Your task to perform on an android device: Open Youtube and go to the subscriptions tab Image 0: 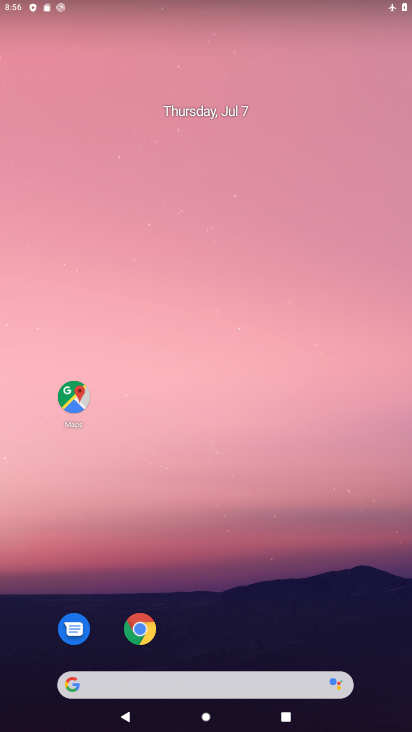
Step 0: drag from (194, 582) to (186, 190)
Your task to perform on an android device: Open Youtube and go to the subscriptions tab Image 1: 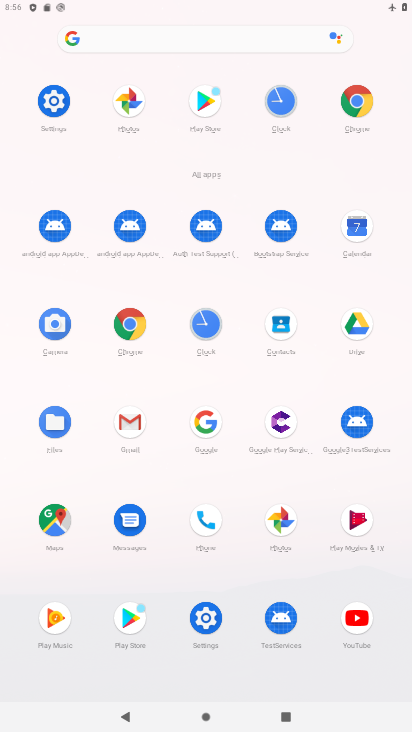
Step 1: click (355, 622)
Your task to perform on an android device: Open Youtube and go to the subscriptions tab Image 2: 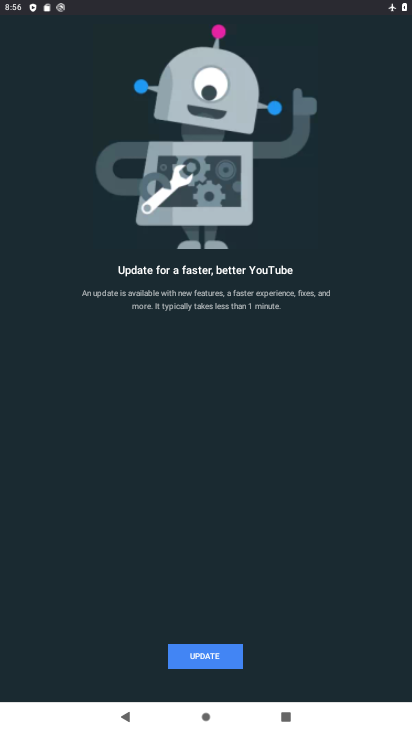
Step 2: click (200, 658)
Your task to perform on an android device: Open Youtube and go to the subscriptions tab Image 3: 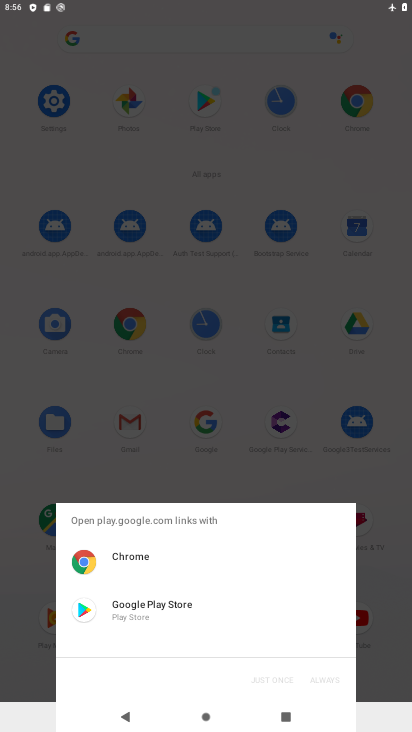
Step 3: click (148, 610)
Your task to perform on an android device: Open Youtube and go to the subscriptions tab Image 4: 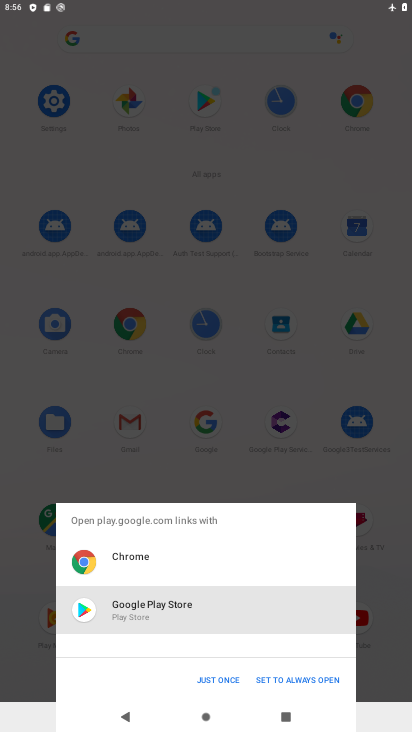
Step 4: click (224, 678)
Your task to perform on an android device: Open Youtube and go to the subscriptions tab Image 5: 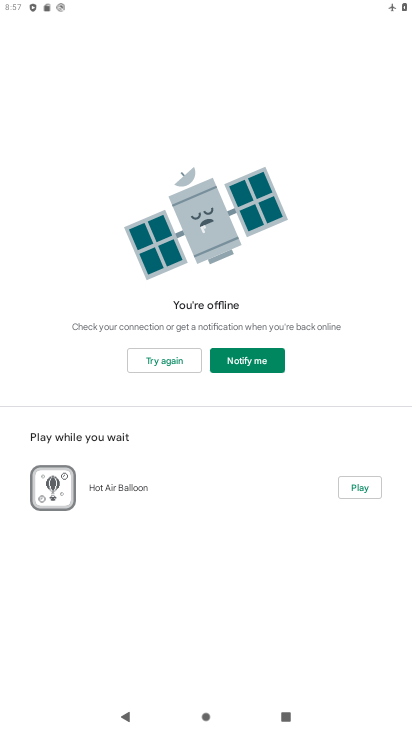
Step 5: task complete